Your task to perform on an android device: open chrome and create a bookmark for the current page Image 0: 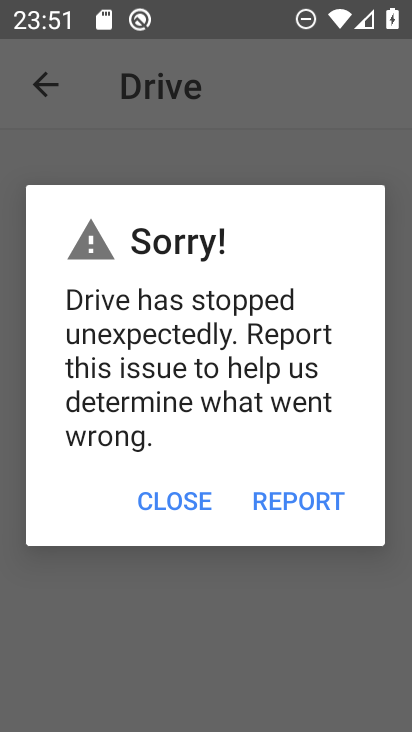
Step 0: press home button
Your task to perform on an android device: open chrome and create a bookmark for the current page Image 1: 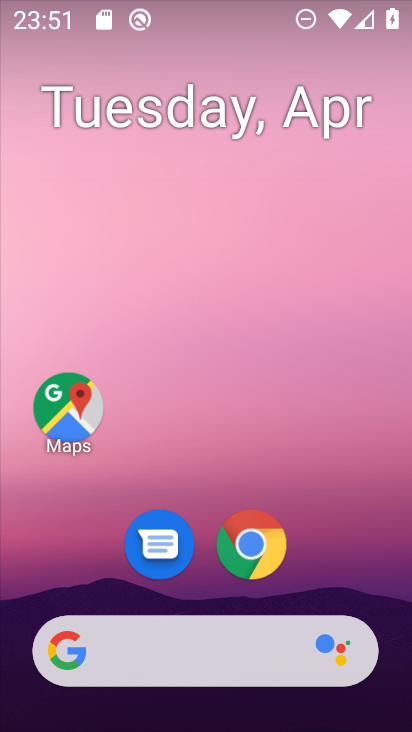
Step 1: drag from (363, 579) to (244, 70)
Your task to perform on an android device: open chrome and create a bookmark for the current page Image 2: 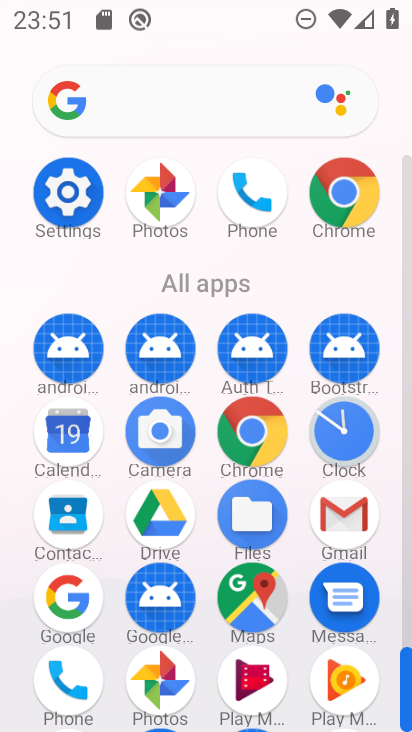
Step 2: click (370, 190)
Your task to perform on an android device: open chrome and create a bookmark for the current page Image 3: 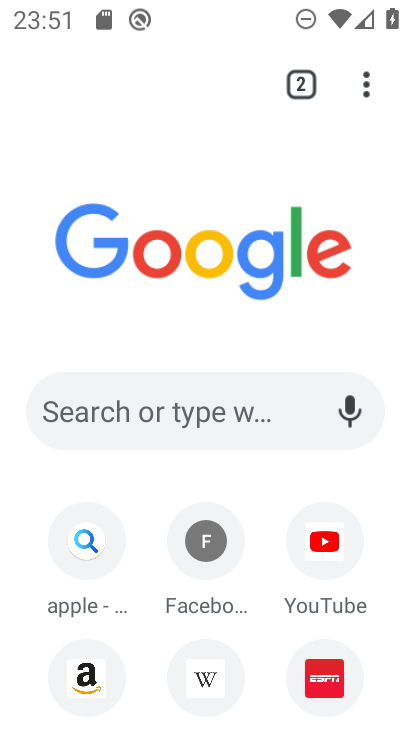
Step 3: click (366, 84)
Your task to perform on an android device: open chrome and create a bookmark for the current page Image 4: 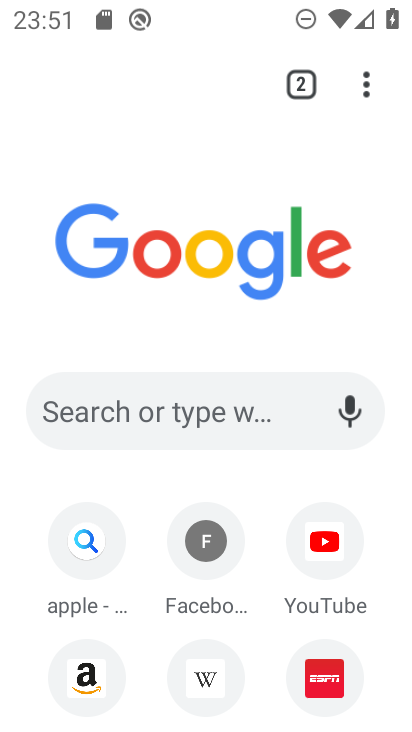
Step 4: click (366, 84)
Your task to perform on an android device: open chrome and create a bookmark for the current page Image 5: 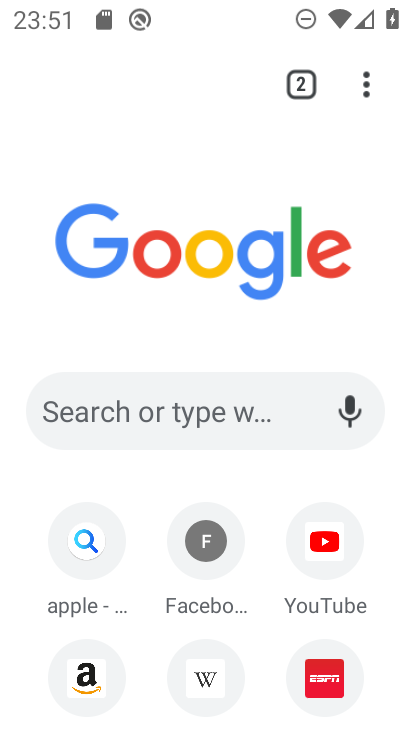
Step 5: click (370, 91)
Your task to perform on an android device: open chrome and create a bookmark for the current page Image 6: 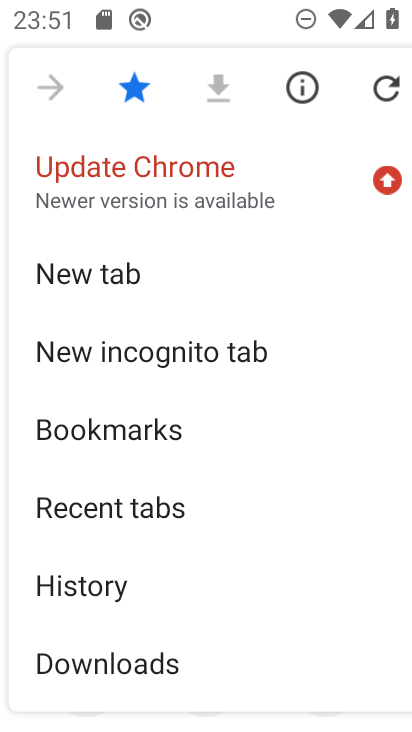
Step 6: click (130, 74)
Your task to perform on an android device: open chrome and create a bookmark for the current page Image 7: 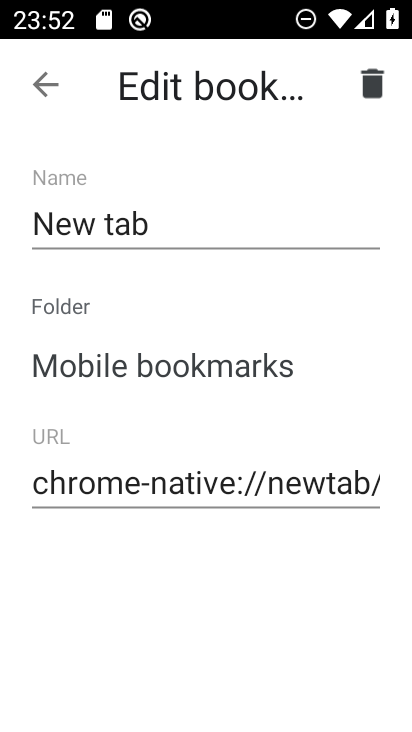
Step 7: click (185, 229)
Your task to perform on an android device: open chrome and create a bookmark for the current page Image 8: 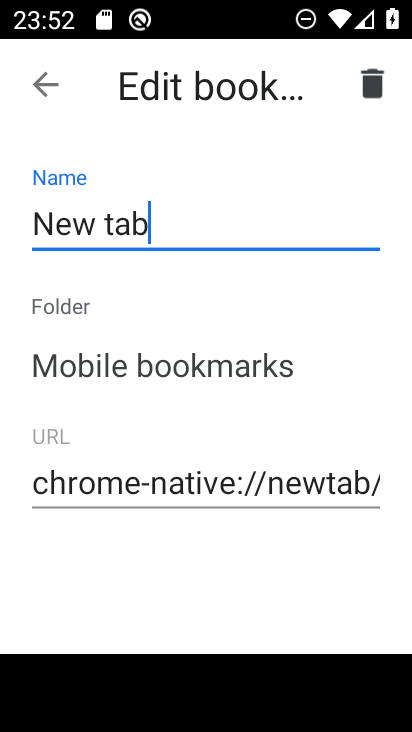
Step 8: type "b"
Your task to perform on an android device: open chrome and create a bookmark for the current page Image 9: 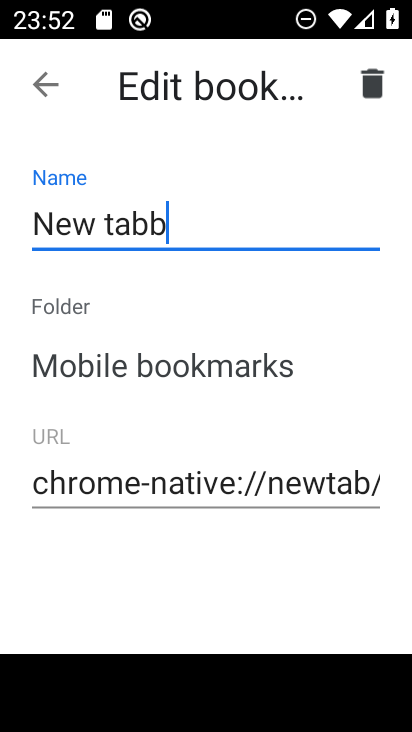
Step 9: click (50, 52)
Your task to perform on an android device: open chrome and create a bookmark for the current page Image 10: 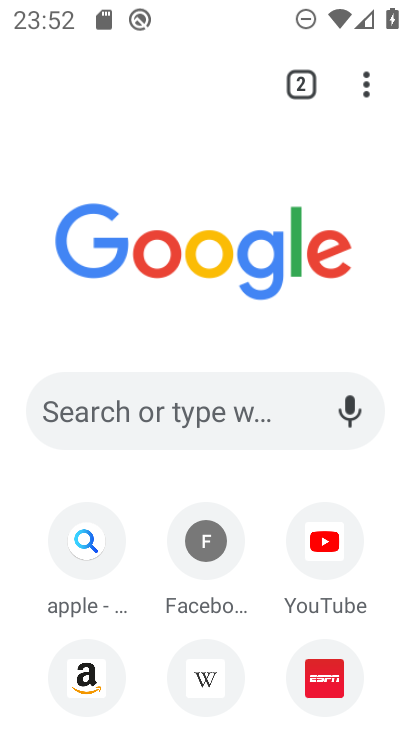
Step 10: task complete